Your task to perform on an android device: empty trash in google photos Image 0: 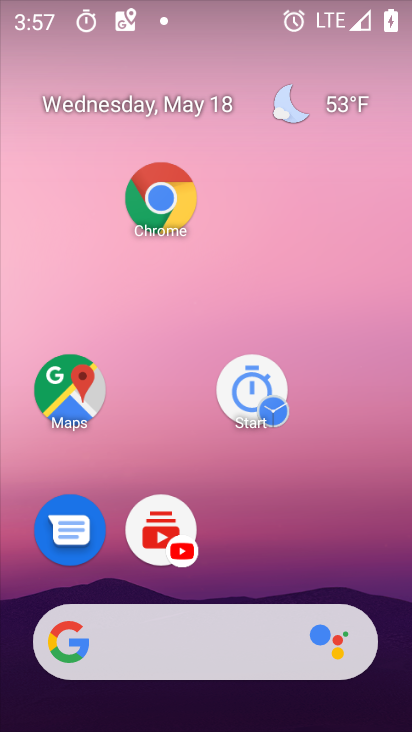
Step 0: drag from (340, 684) to (251, 333)
Your task to perform on an android device: empty trash in google photos Image 1: 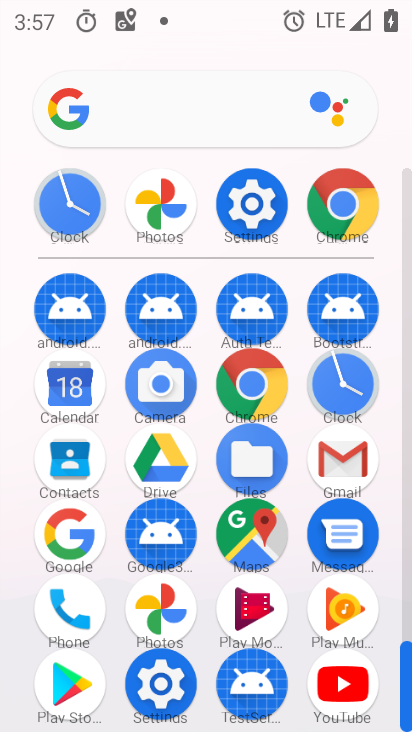
Step 1: click (161, 611)
Your task to perform on an android device: empty trash in google photos Image 2: 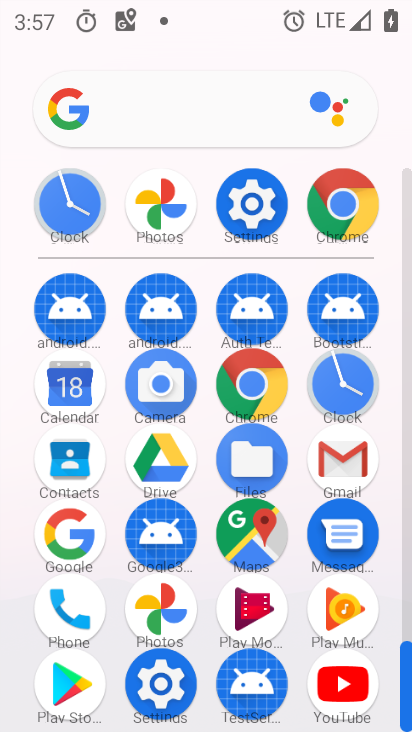
Step 2: click (163, 606)
Your task to perform on an android device: empty trash in google photos Image 3: 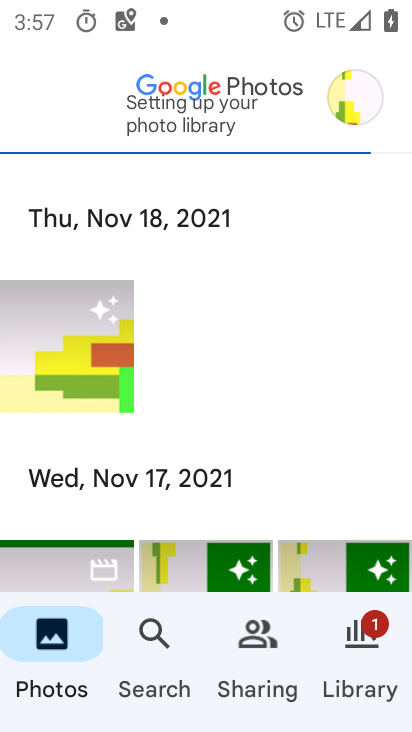
Step 3: task complete